Your task to perform on an android device: Open Amazon Image 0: 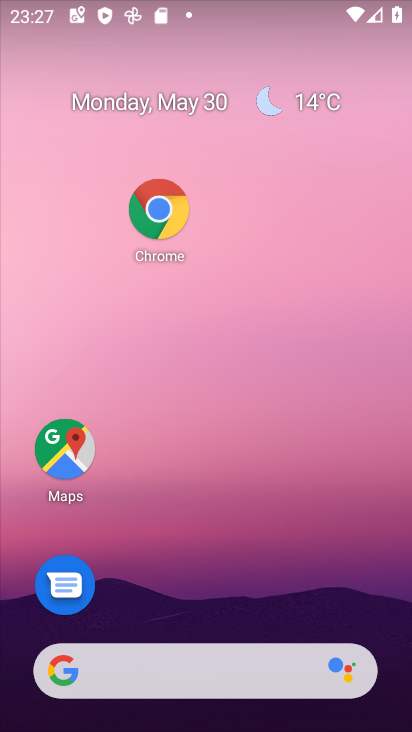
Step 0: drag from (212, 574) to (238, 77)
Your task to perform on an android device: Open Amazon Image 1: 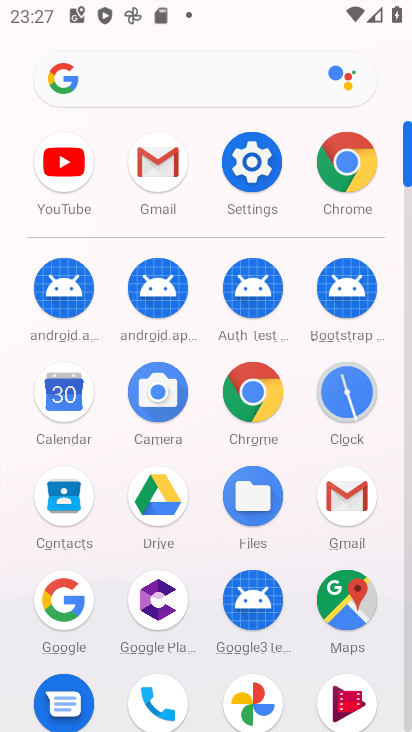
Step 1: click (342, 166)
Your task to perform on an android device: Open Amazon Image 2: 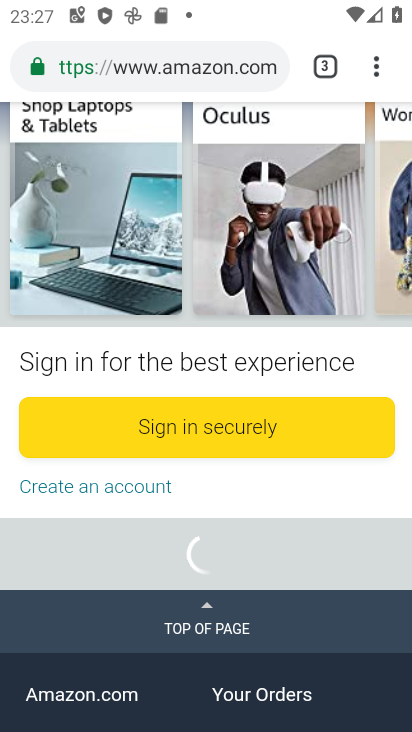
Step 2: task complete